Your task to perform on an android device: change the clock display to show seconds Image 0: 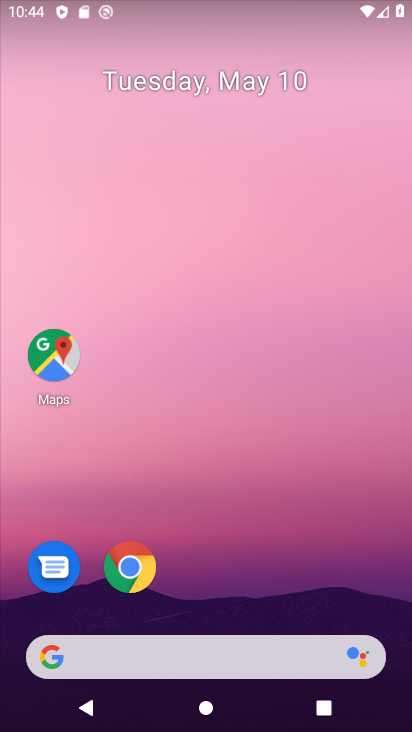
Step 0: drag from (300, 554) to (291, 176)
Your task to perform on an android device: change the clock display to show seconds Image 1: 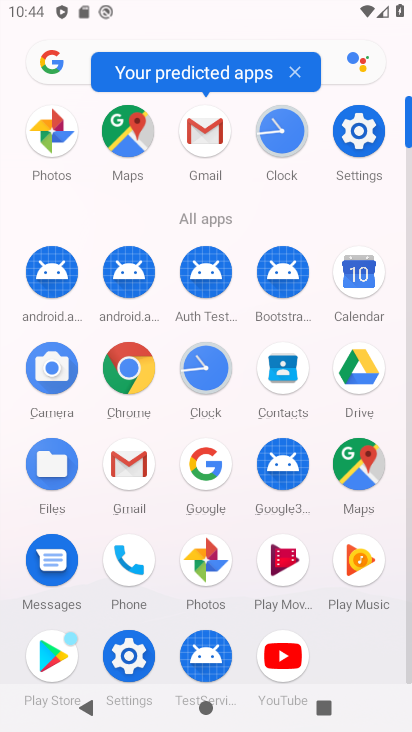
Step 1: click (205, 385)
Your task to perform on an android device: change the clock display to show seconds Image 2: 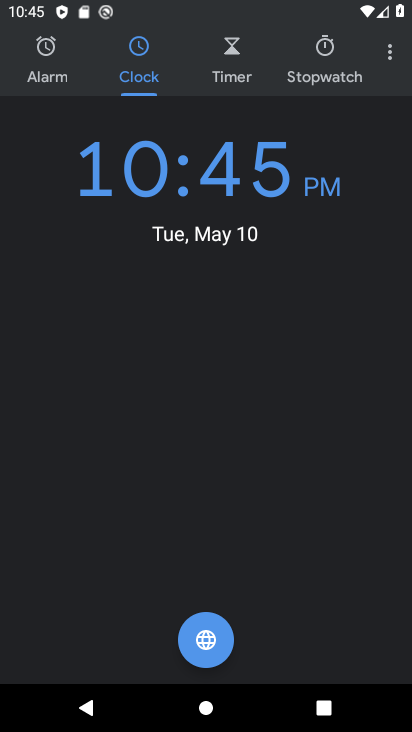
Step 2: click (393, 55)
Your task to perform on an android device: change the clock display to show seconds Image 3: 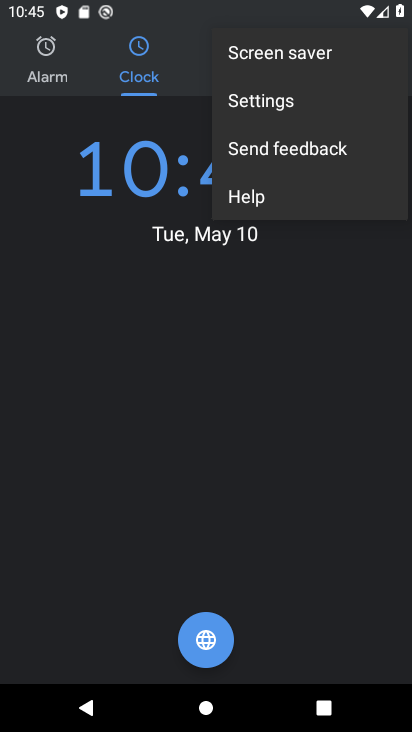
Step 3: click (288, 103)
Your task to perform on an android device: change the clock display to show seconds Image 4: 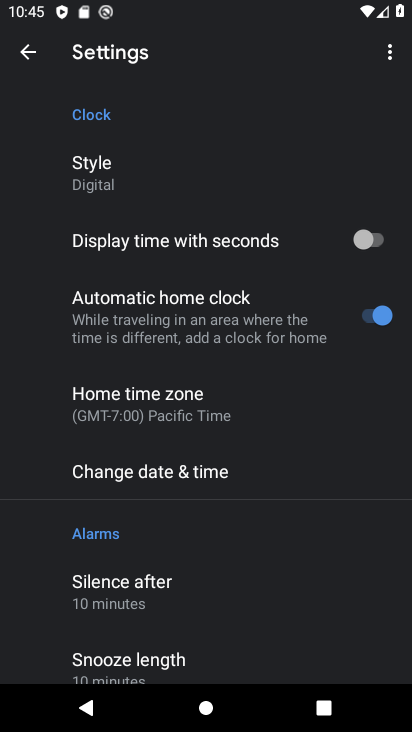
Step 4: click (361, 232)
Your task to perform on an android device: change the clock display to show seconds Image 5: 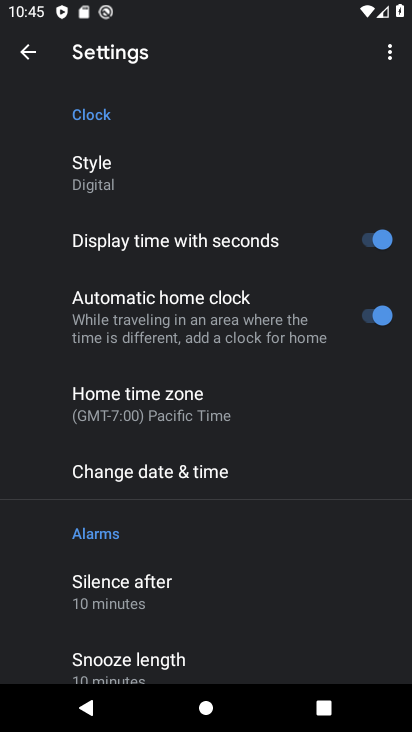
Step 5: task complete